Your task to perform on an android device: Open display settings Image 0: 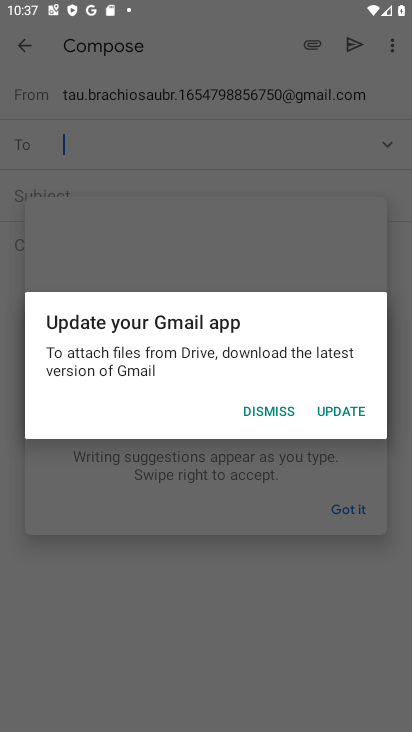
Step 0: press home button
Your task to perform on an android device: Open display settings Image 1: 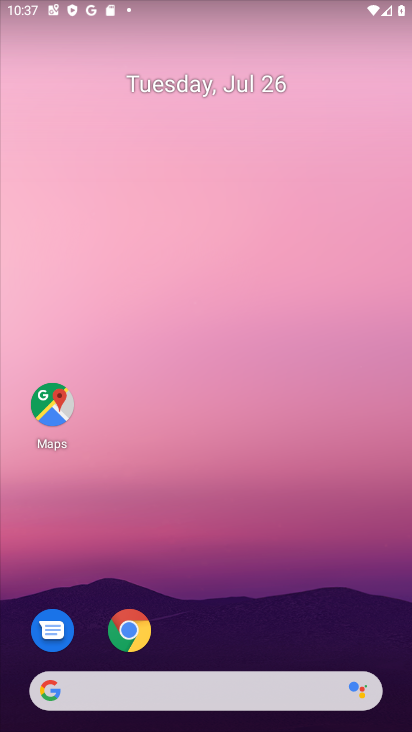
Step 1: drag from (183, 560) to (115, 1)
Your task to perform on an android device: Open display settings Image 2: 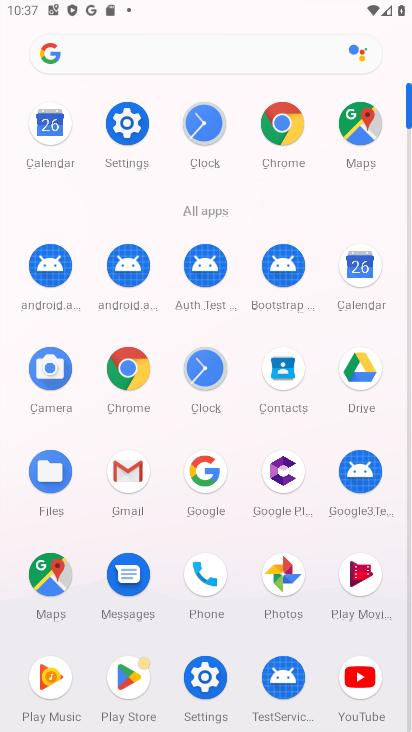
Step 2: click (117, 134)
Your task to perform on an android device: Open display settings Image 3: 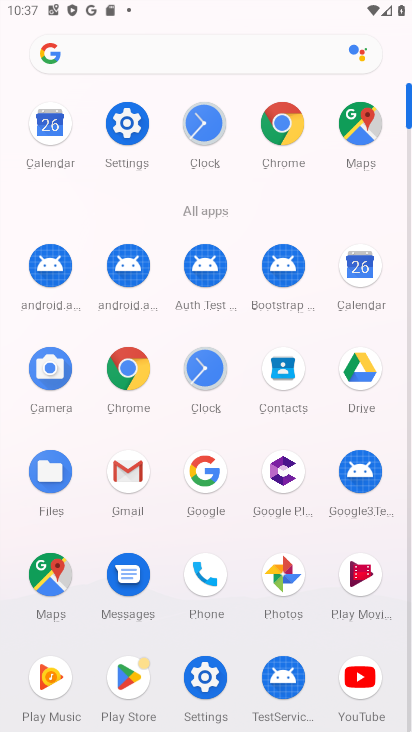
Step 3: click (117, 134)
Your task to perform on an android device: Open display settings Image 4: 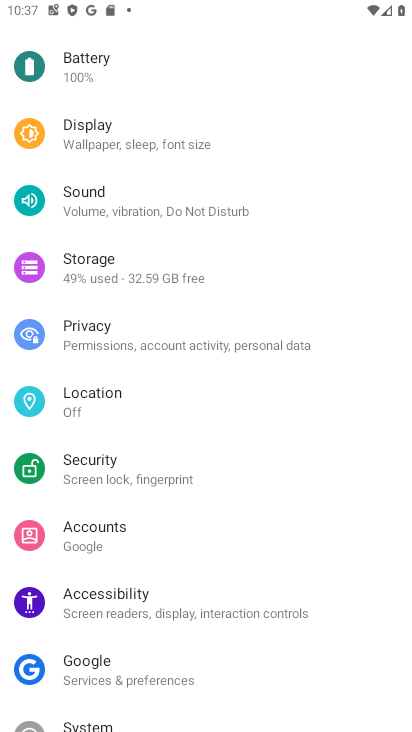
Step 4: click (133, 137)
Your task to perform on an android device: Open display settings Image 5: 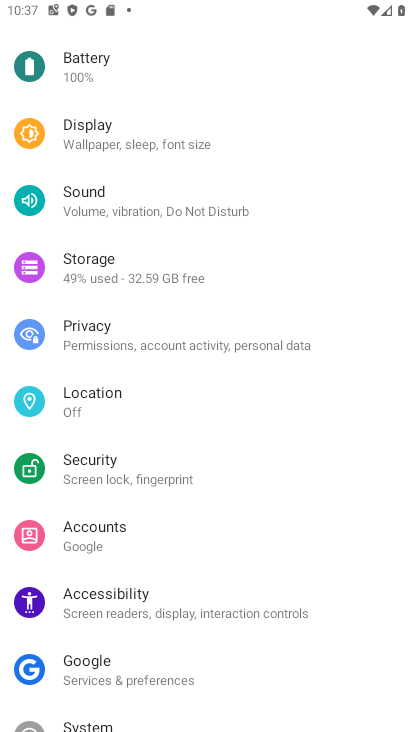
Step 5: click (133, 137)
Your task to perform on an android device: Open display settings Image 6: 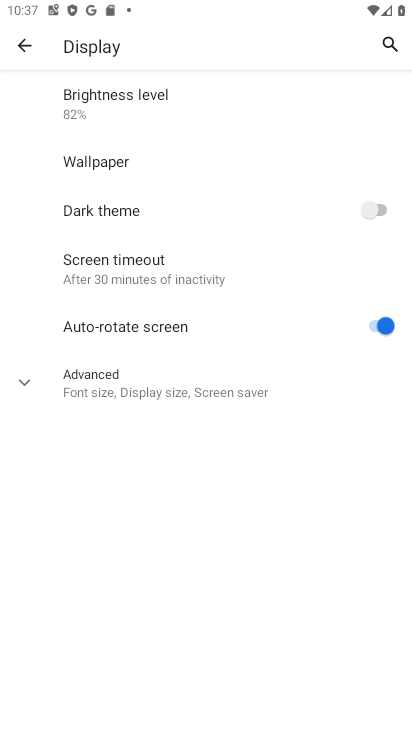
Step 6: task complete